Your task to perform on an android device: Open calendar and show me the first week of next month Image 0: 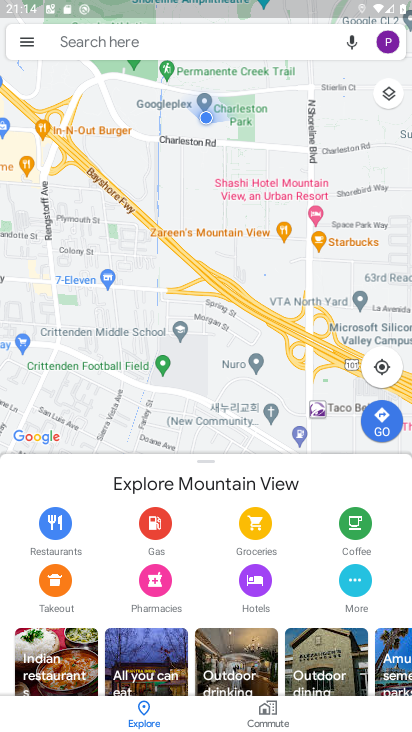
Step 0: press home button
Your task to perform on an android device: Open calendar and show me the first week of next month Image 1: 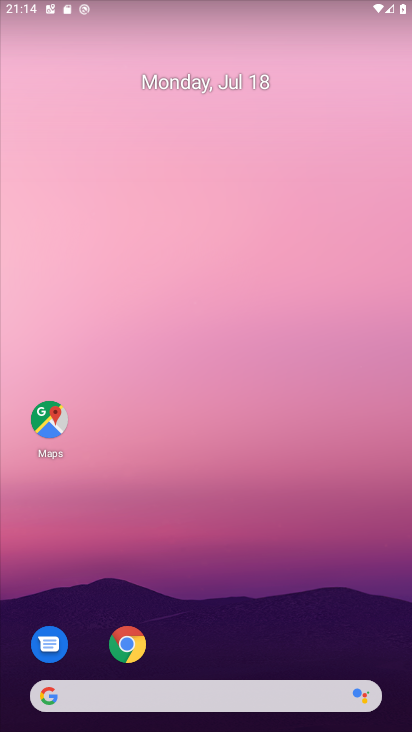
Step 1: drag from (213, 632) to (275, 112)
Your task to perform on an android device: Open calendar and show me the first week of next month Image 2: 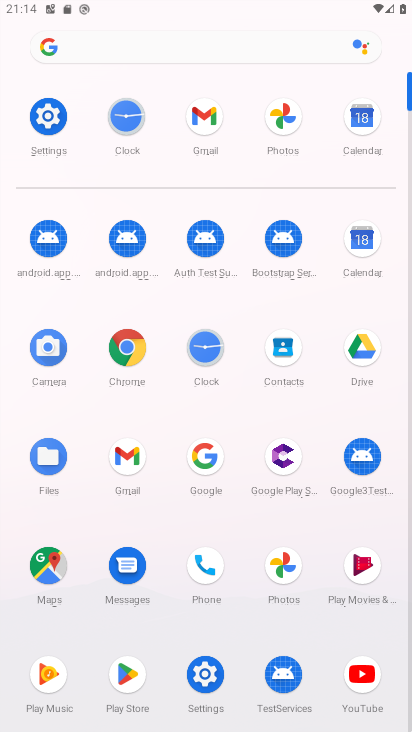
Step 2: click (367, 146)
Your task to perform on an android device: Open calendar and show me the first week of next month Image 3: 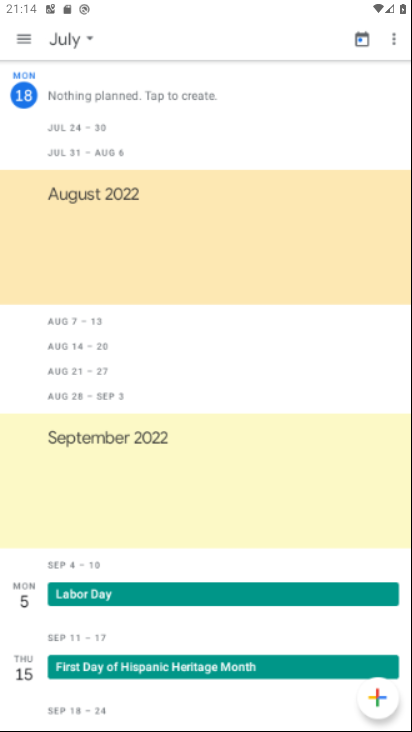
Step 3: task complete